Your task to perform on an android device: Search for Mexican restaurants on Maps Image 0: 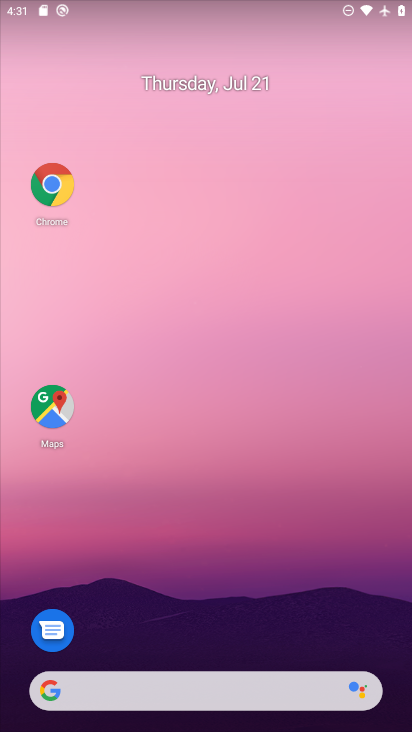
Step 0: click (53, 428)
Your task to perform on an android device: Search for Mexican restaurants on Maps Image 1: 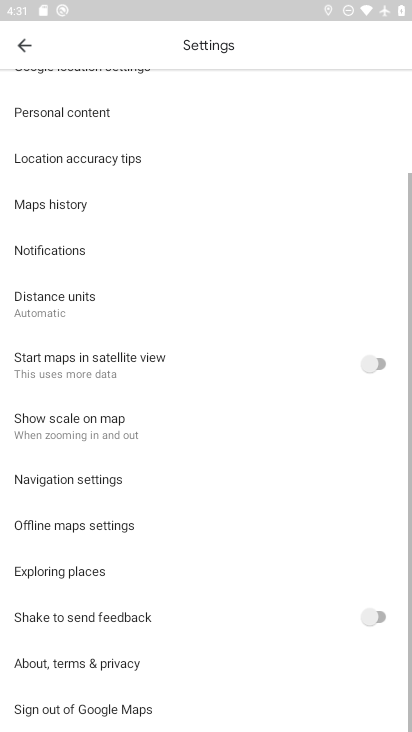
Step 1: click (31, 43)
Your task to perform on an android device: Search for Mexican restaurants on Maps Image 2: 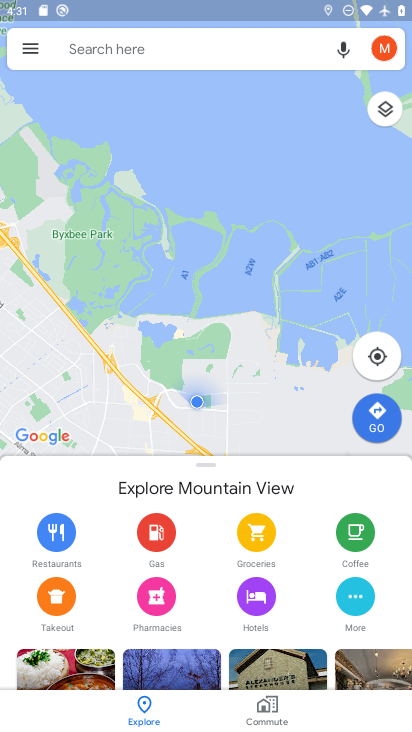
Step 2: click (182, 57)
Your task to perform on an android device: Search for Mexican restaurants on Maps Image 3: 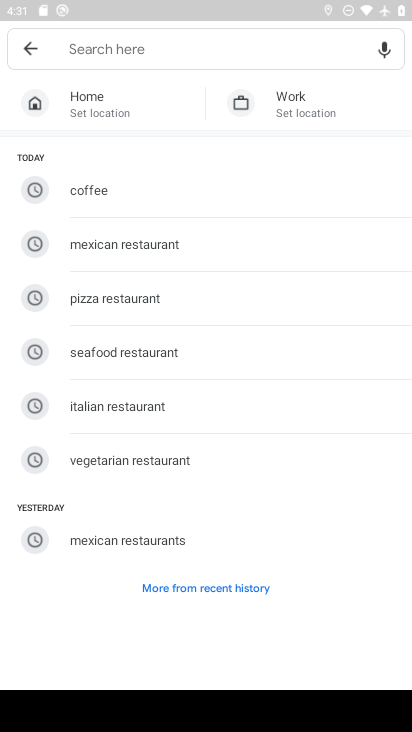
Step 3: click (122, 255)
Your task to perform on an android device: Search for Mexican restaurants on Maps Image 4: 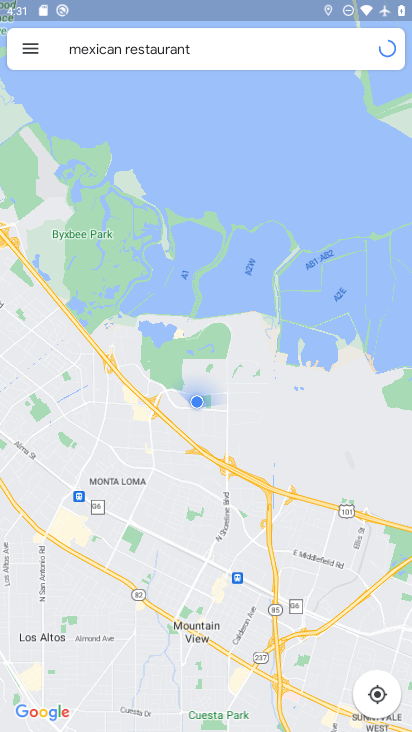
Step 4: task complete